Your task to perform on an android device: When is my next meeting? Image 0: 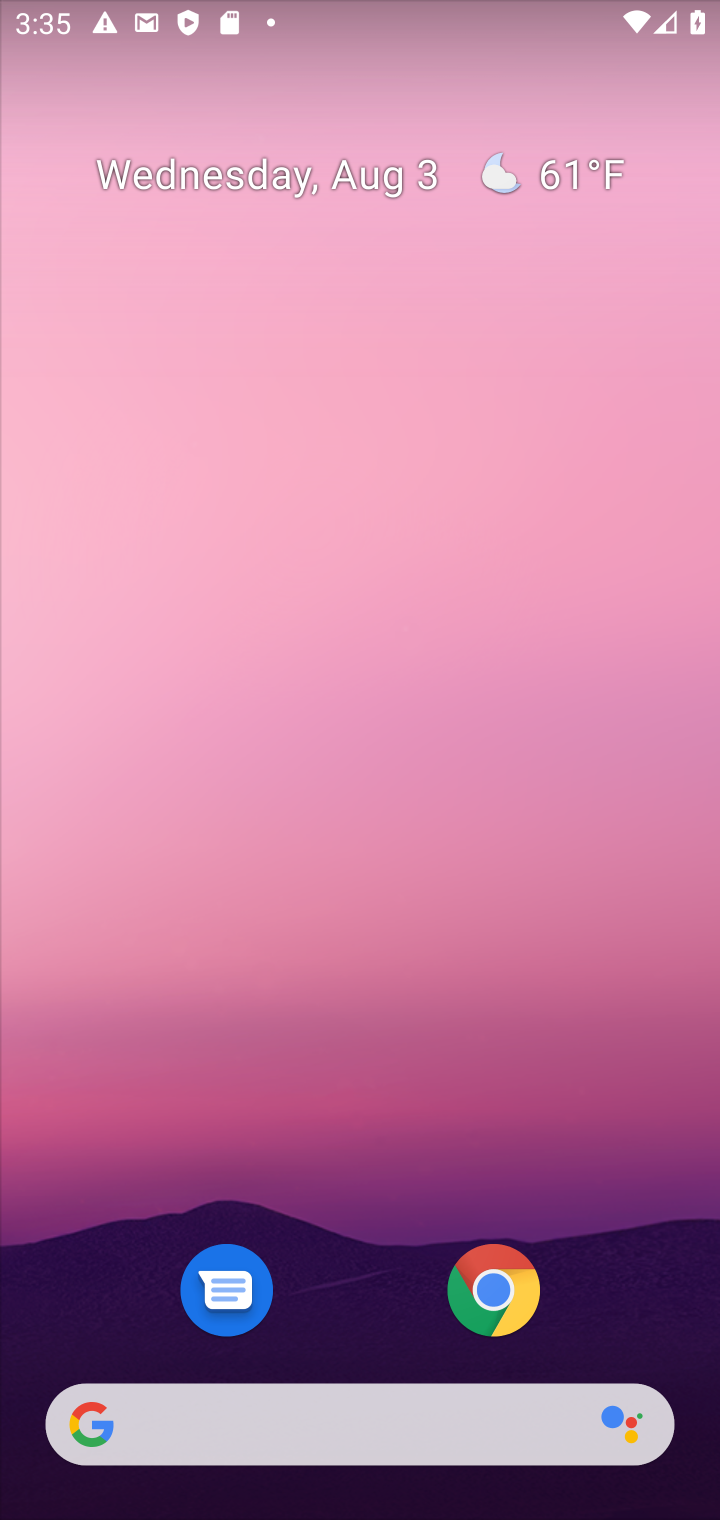
Step 0: drag from (432, 631) to (507, 32)
Your task to perform on an android device: When is my next meeting? Image 1: 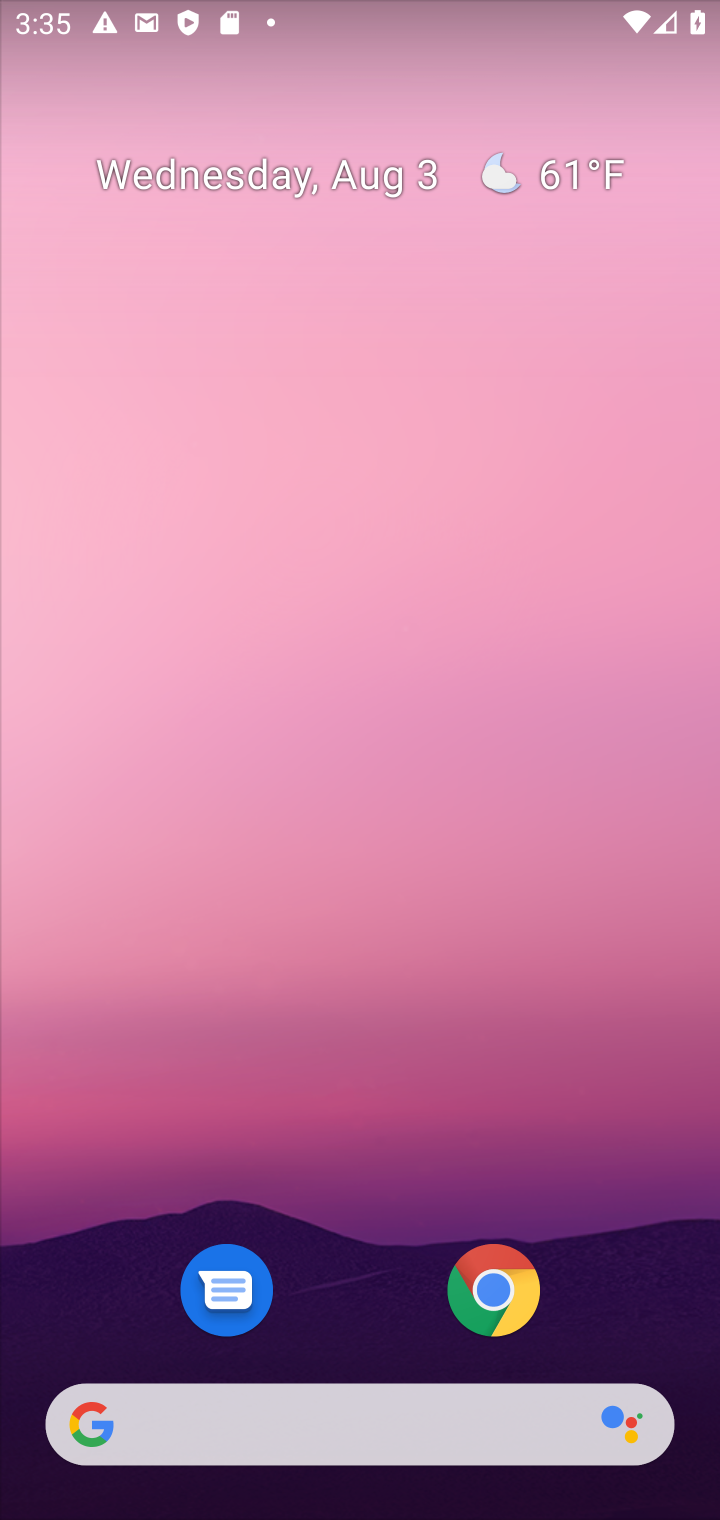
Step 1: drag from (401, 1036) to (406, 39)
Your task to perform on an android device: When is my next meeting? Image 2: 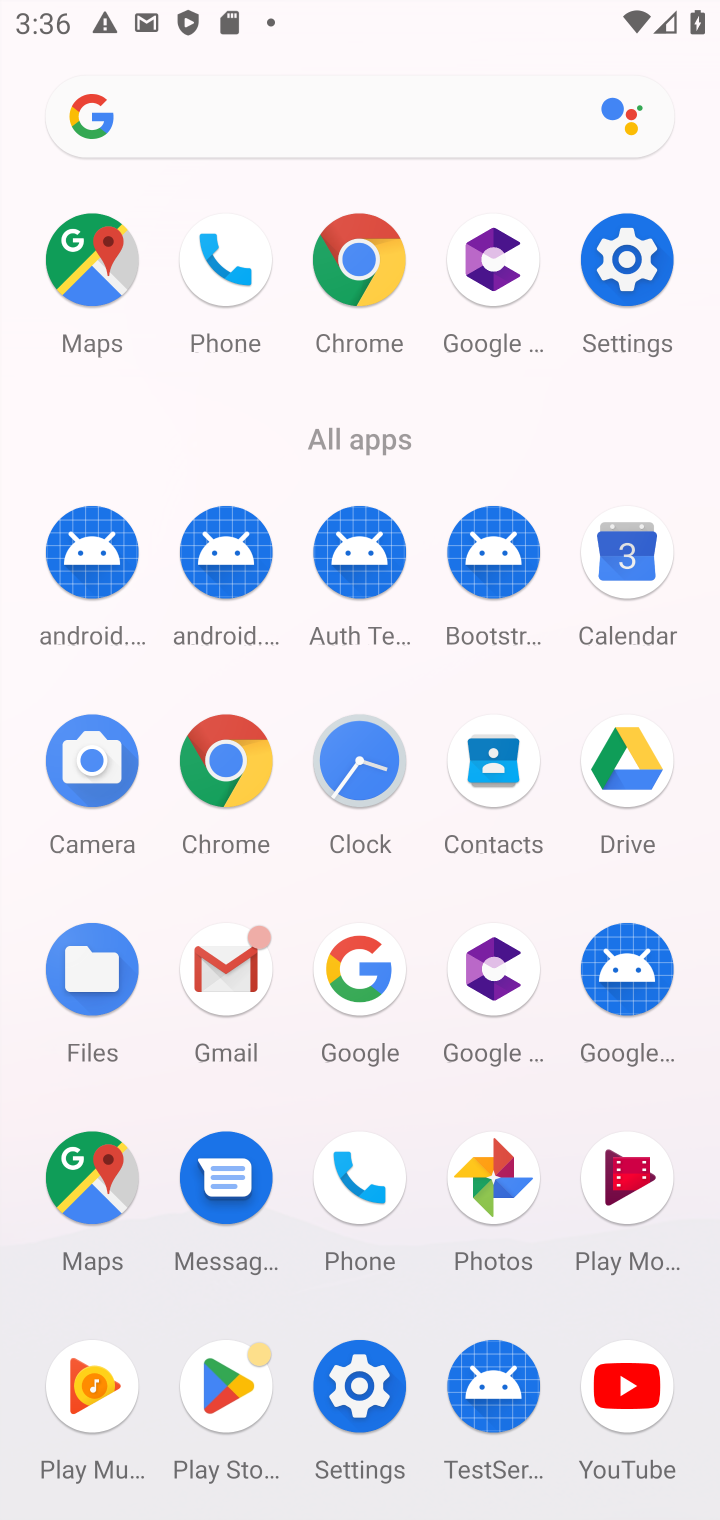
Step 2: click (631, 556)
Your task to perform on an android device: When is my next meeting? Image 3: 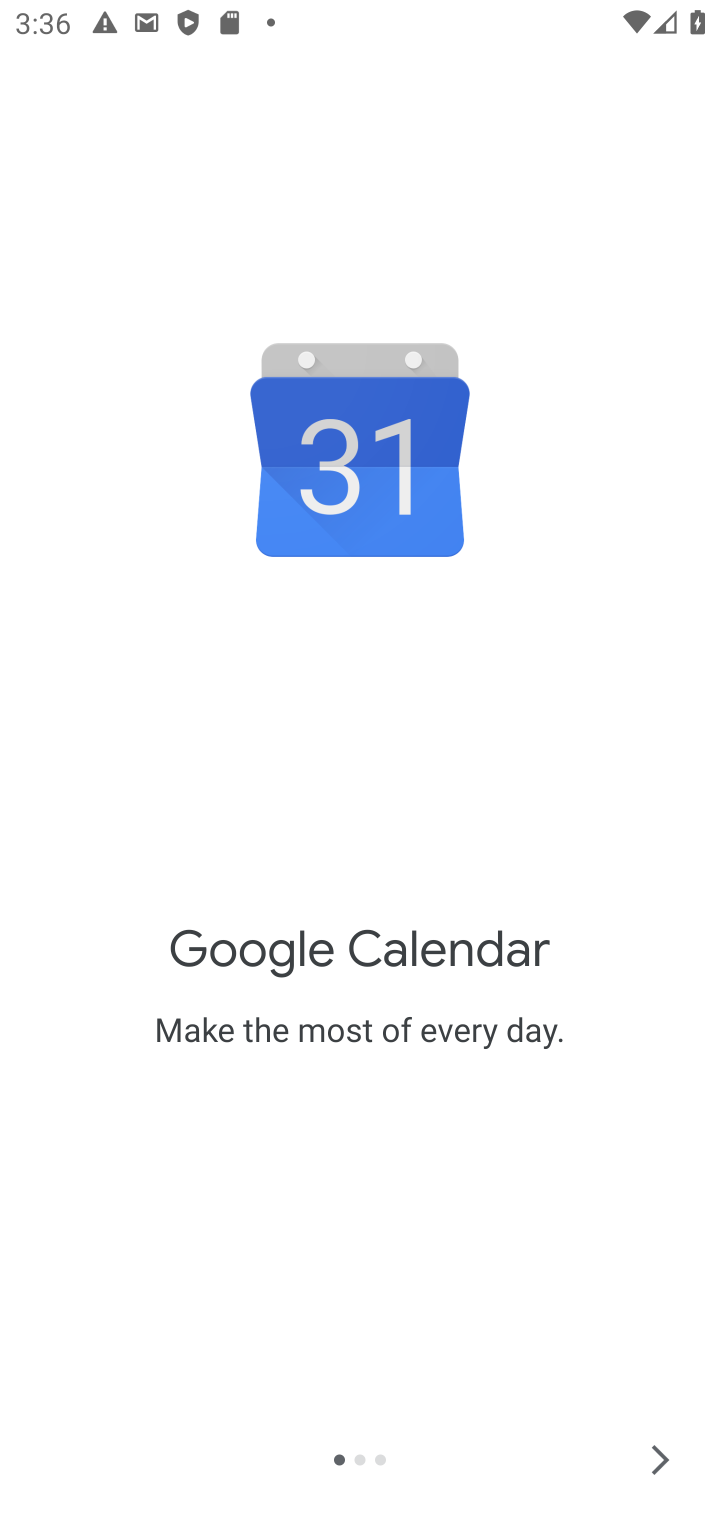
Step 3: click (654, 1456)
Your task to perform on an android device: When is my next meeting? Image 4: 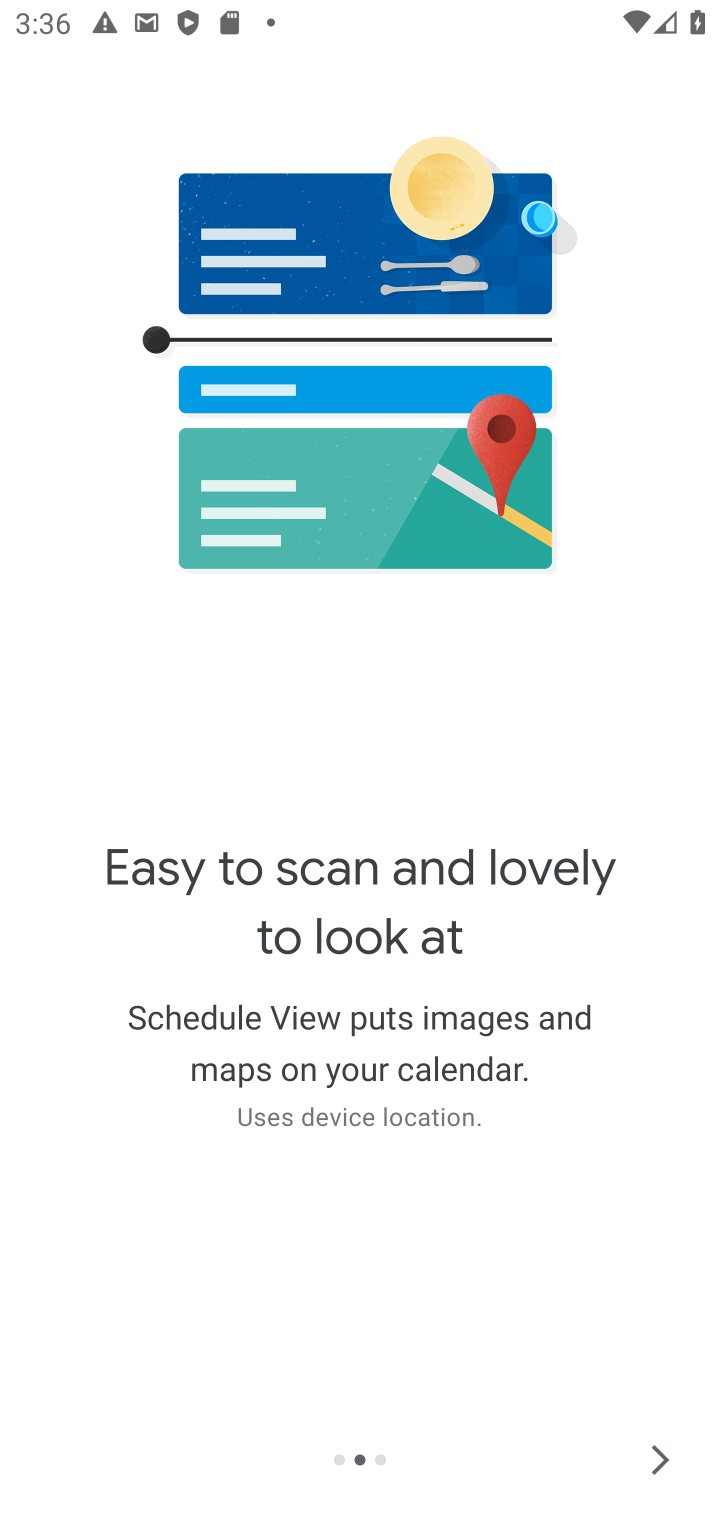
Step 4: click (687, 1483)
Your task to perform on an android device: When is my next meeting? Image 5: 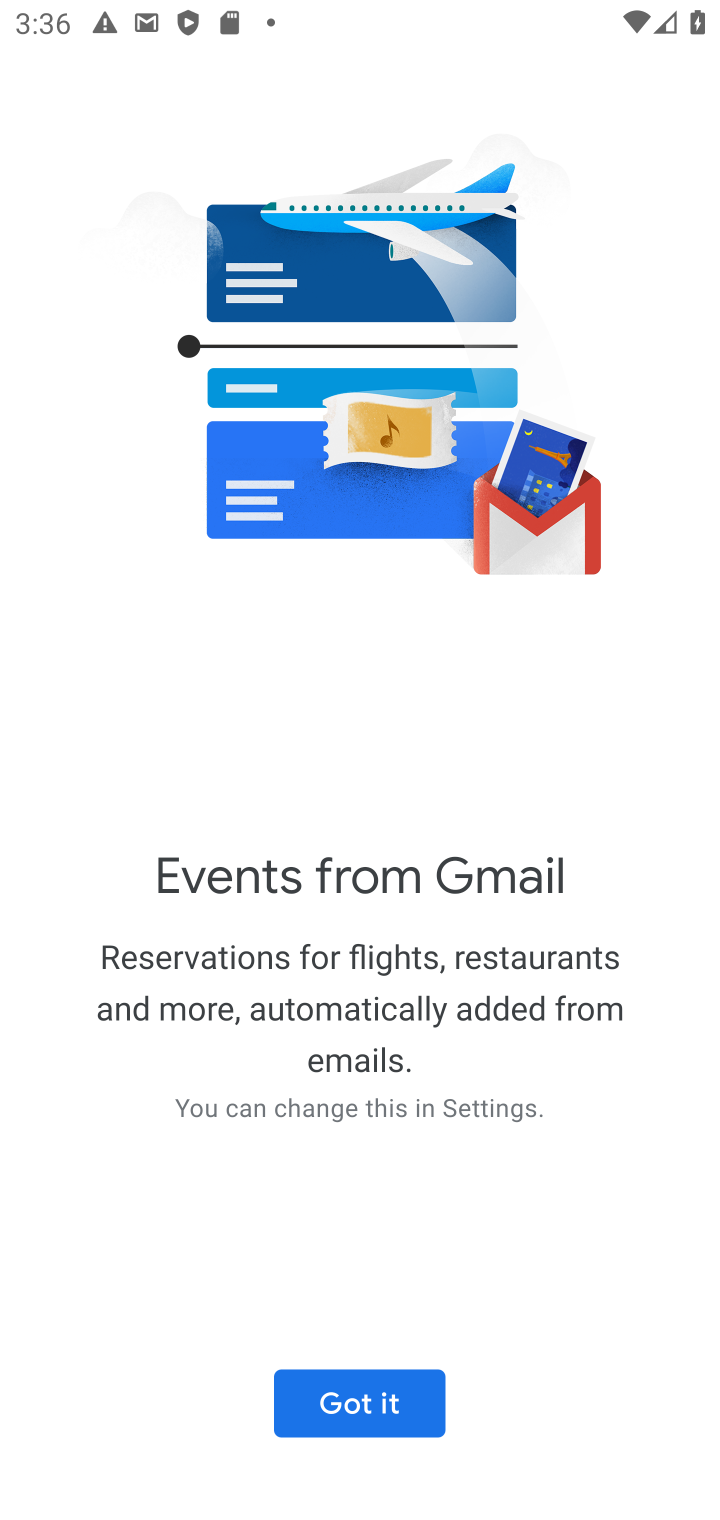
Step 5: click (295, 1399)
Your task to perform on an android device: When is my next meeting? Image 6: 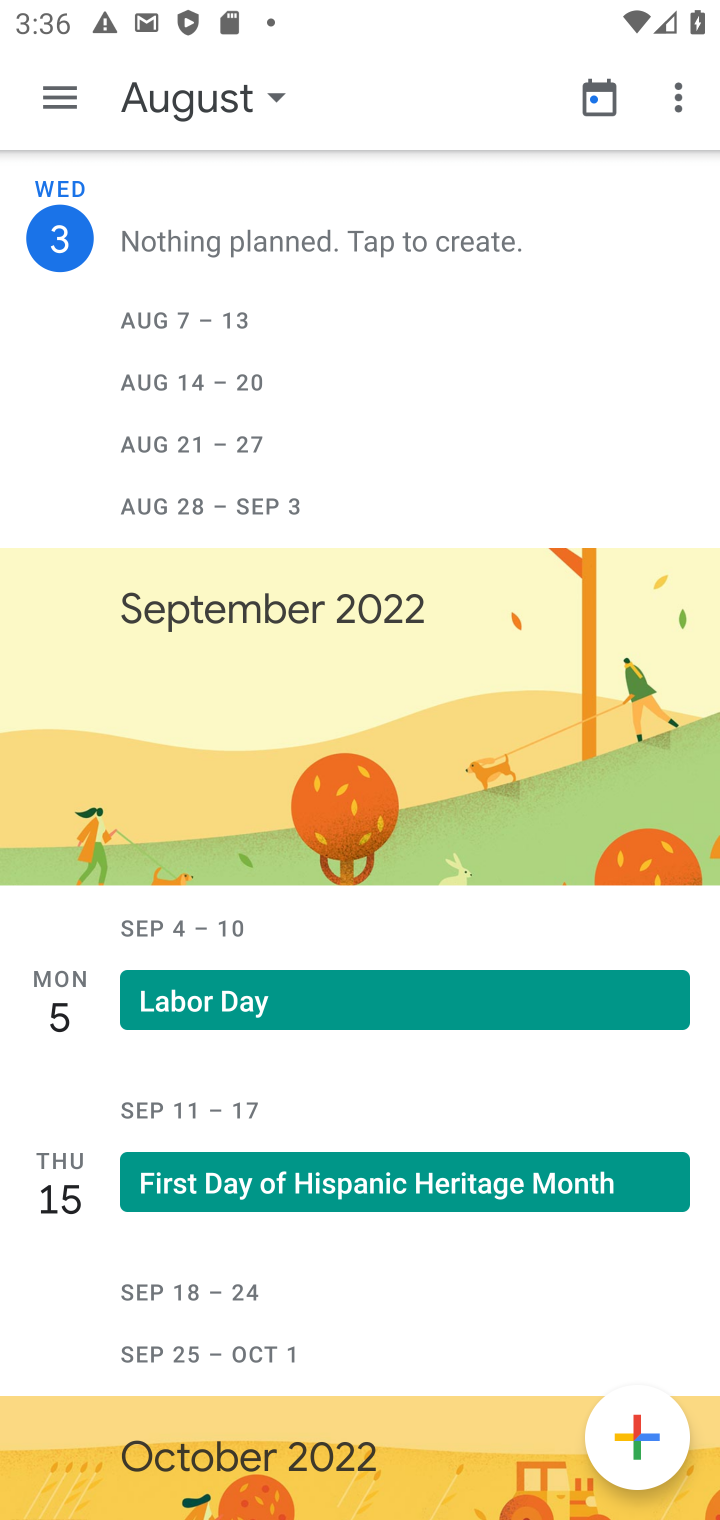
Step 6: task complete